Your task to perform on an android device: Open network settings Image 0: 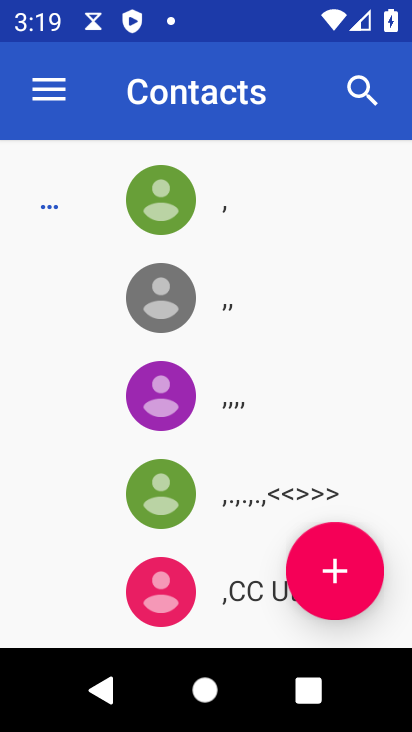
Step 0: press home button
Your task to perform on an android device: Open network settings Image 1: 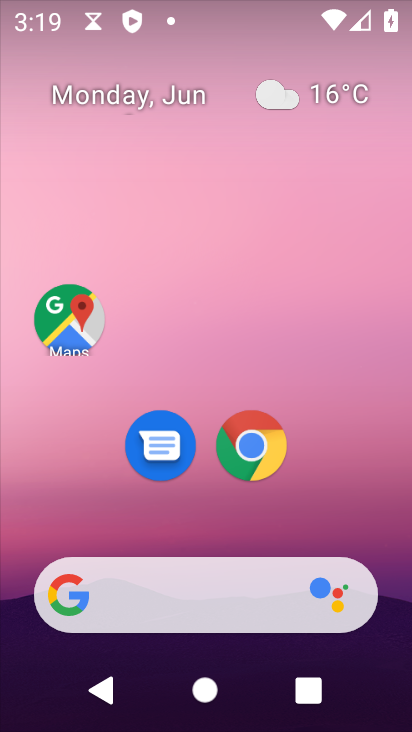
Step 1: drag from (84, 553) to (169, 141)
Your task to perform on an android device: Open network settings Image 2: 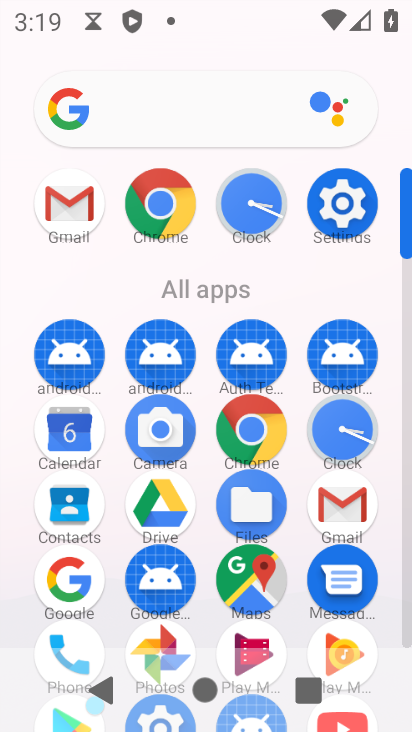
Step 2: drag from (164, 627) to (272, 334)
Your task to perform on an android device: Open network settings Image 3: 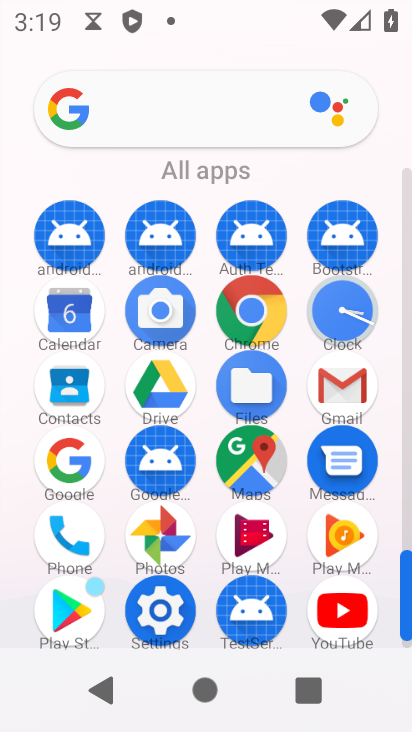
Step 3: click (162, 619)
Your task to perform on an android device: Open network settings Image 4: 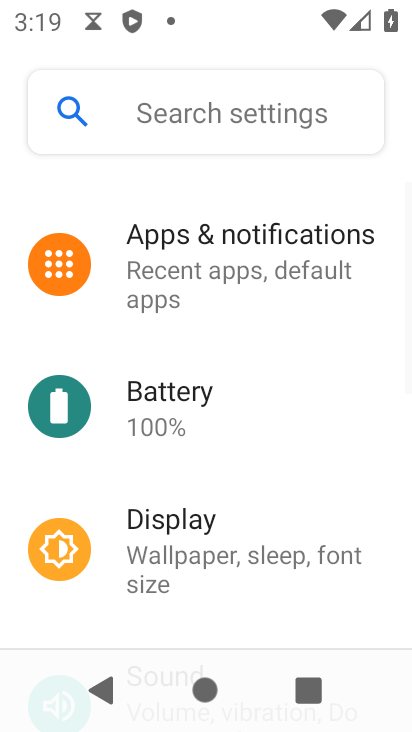
Step 4: drag from (197, 274) to (130, 558)
Your task to perform on an android device: Open network settings Image 5: 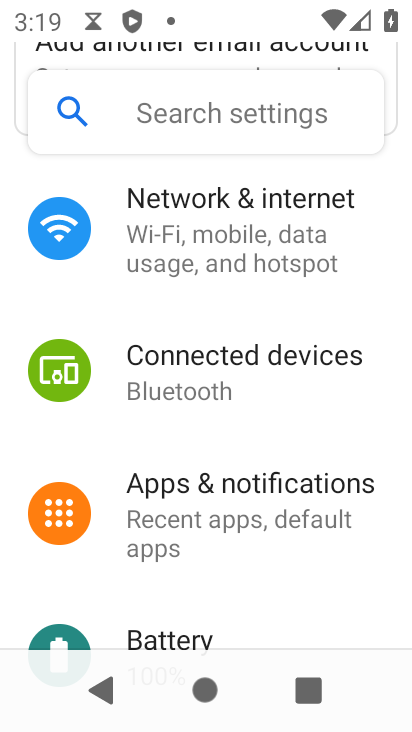
Step 5: click (277, 243)
Your task to perform on an android device: Open network settings Image 6: 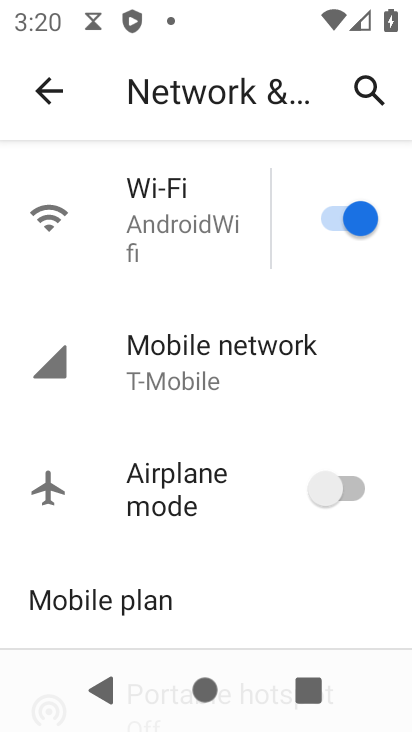
Step 6: click (282, 387)
Your task to perform on an android device: Open network settings Image 7: 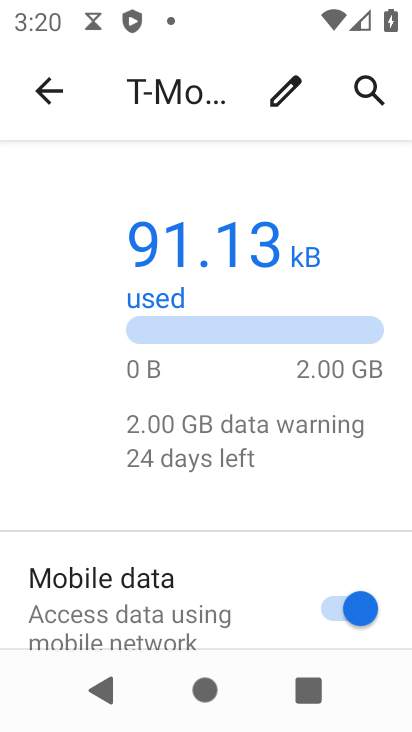
Step 7: task complete